Your task to perform on an android device: all mails in gmail Image 0: 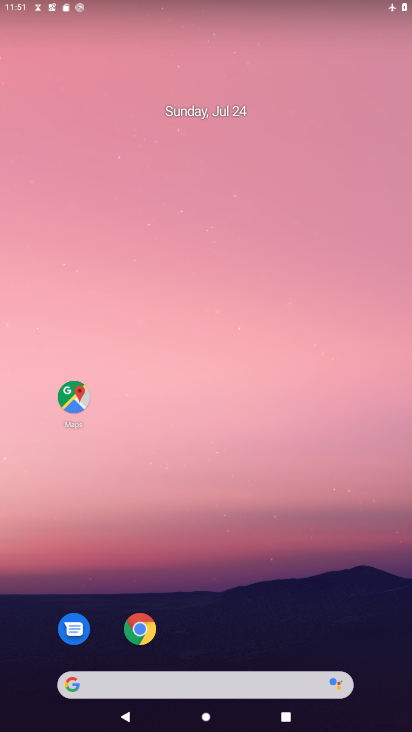
Step 0: drag from (207, 607) to (229, 100)
Your task to perform on an android device: all mails in gmail Image 1: 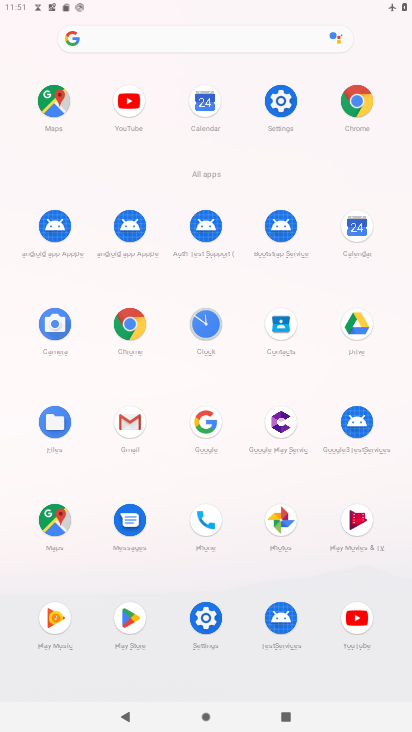
Step 1: click (130, 428)
Your task to perform on an android device: all mails in gmail Image 2: 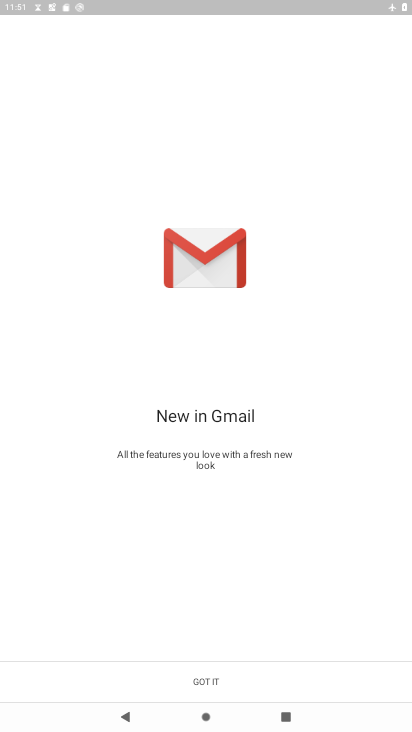
Step 2: click (224, 682)
Your task to perform on an android device: all mails in gmail Image 3: 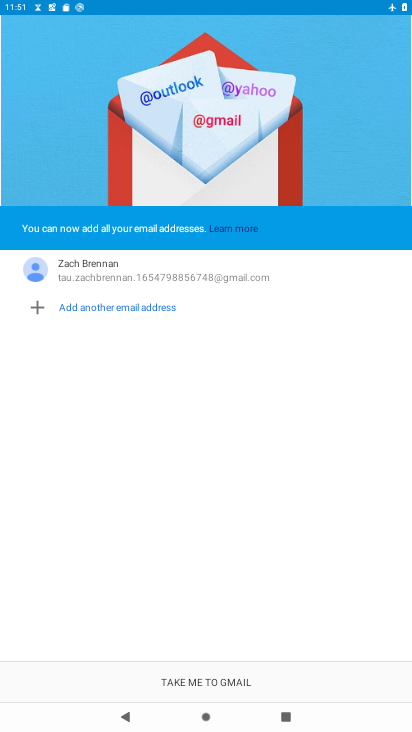
Step 3: click (221, 684)
Your task to perform on an android device: all mails in gmail Image 4: 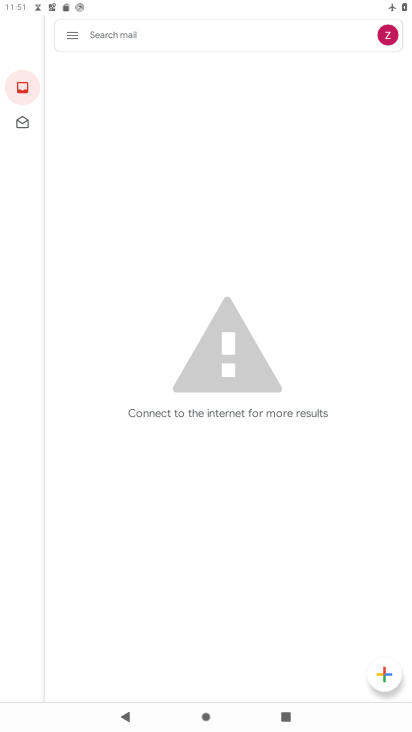
Step 4: click (68, 42)
Your task to perform on an android device: all mails in gmail Image 5: 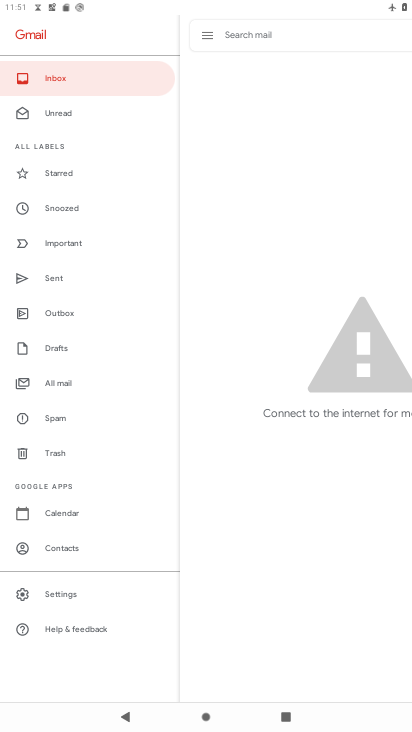
Step 5: click (57, 384)
Your task to perform on an android device: all mails in gmail Image 6: 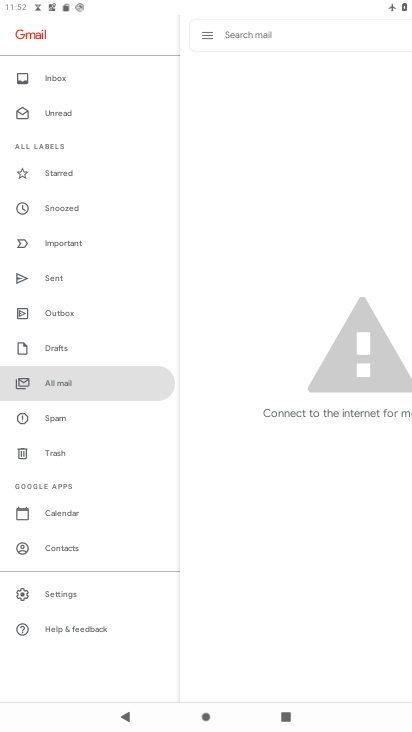
Step 6: task complete